Your task to perform on an android device: check data usage Image 0: 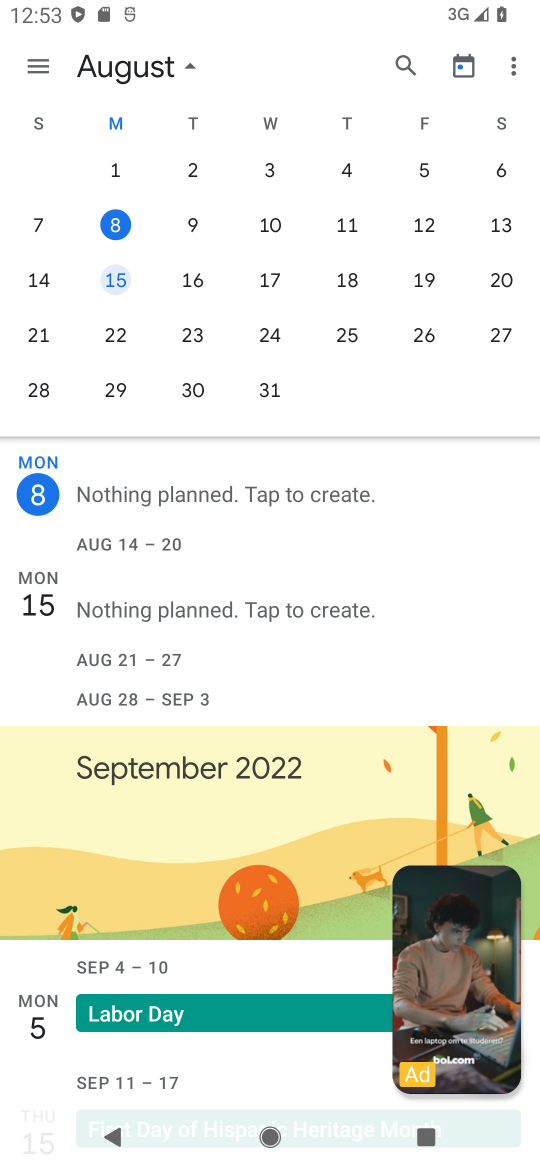
Step 0: drag from (357, 14) to (301, 977)
Your task to perform on an android device: check data usage Image 1: 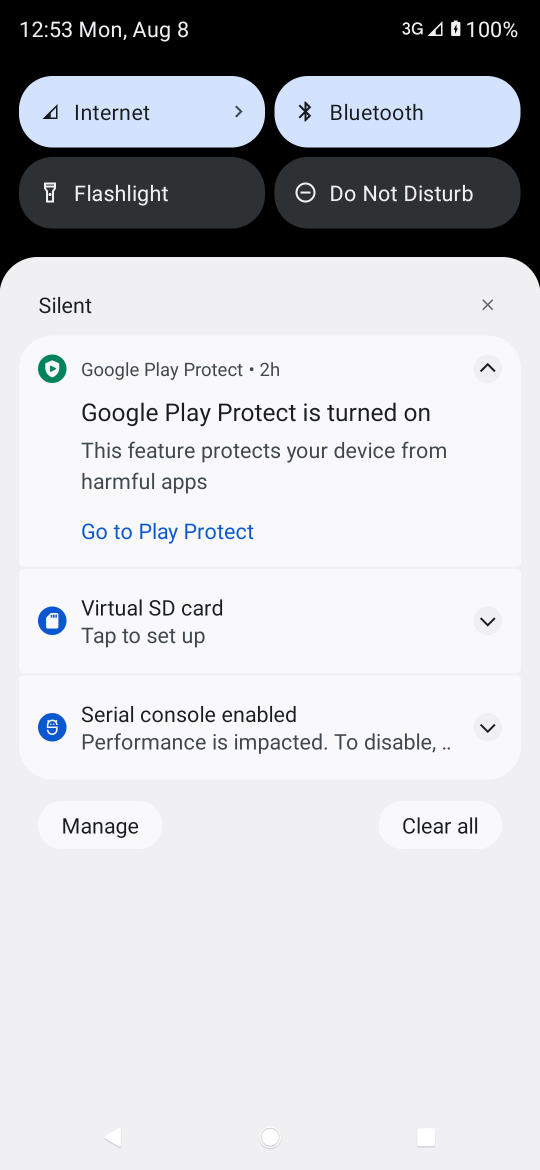
Step 1: click (199, 112)
Your task to perform on an android device: check data usage Image 2: 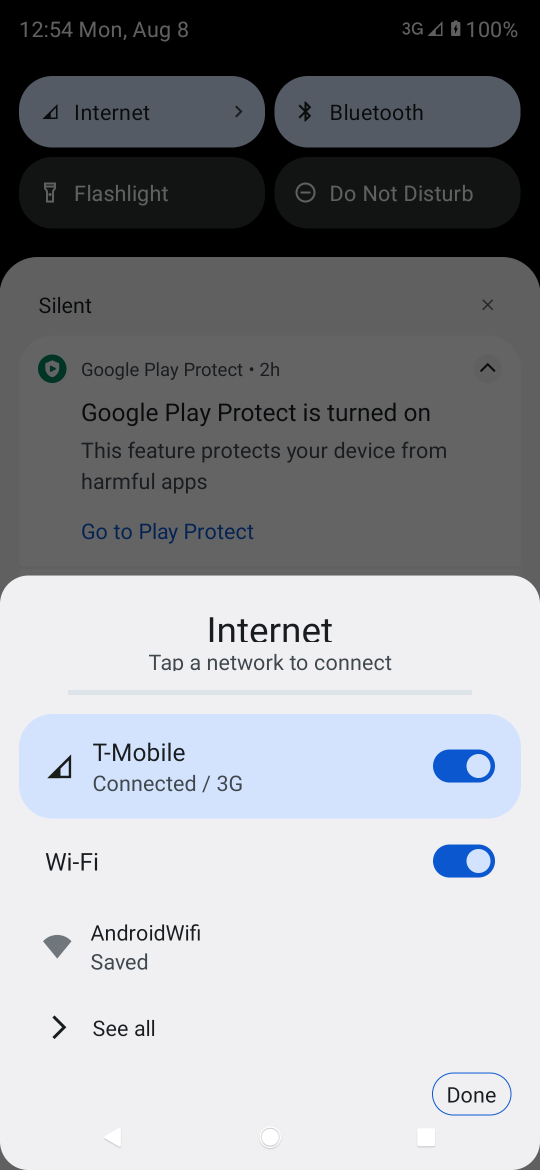
Step 2: task complete